Your task to perform on an android device: Go to wifi settings Image 0: 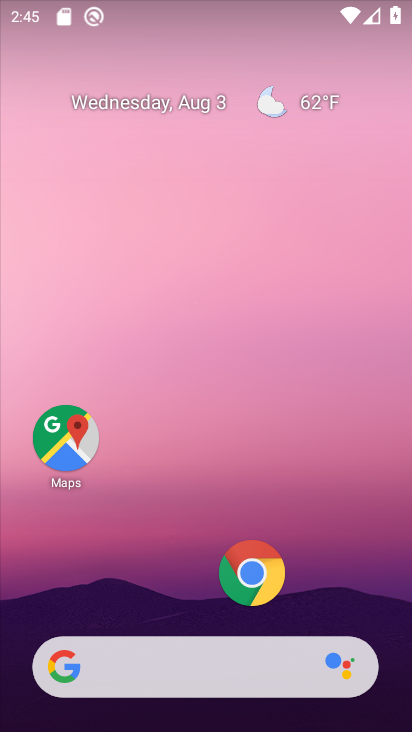
Step 0: drag from (176, 601) to (260, 7)
Your task to perform on an android device: Go to wifi settings Image 1: 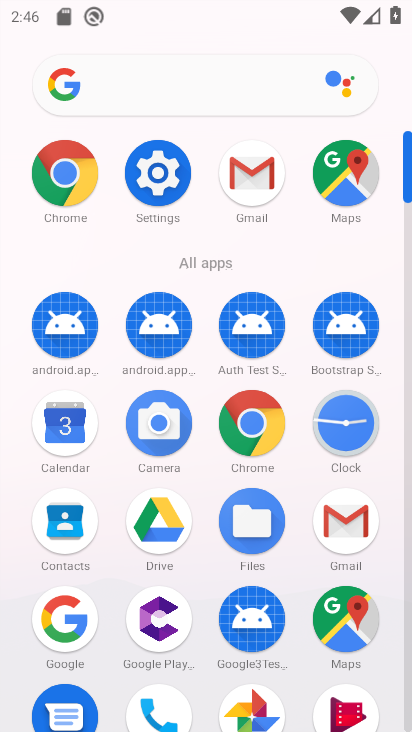
Step 1: click (161, 195)
Your task to perform on an android device: Go to wifi settings Image 2: 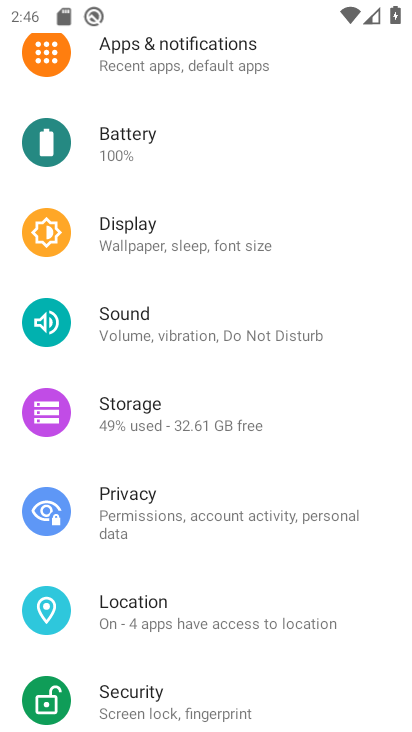
Step 2: drag from (218, 214) to (246, 606)
Your task to perform on an android device: Go to wifi settings Image 3: 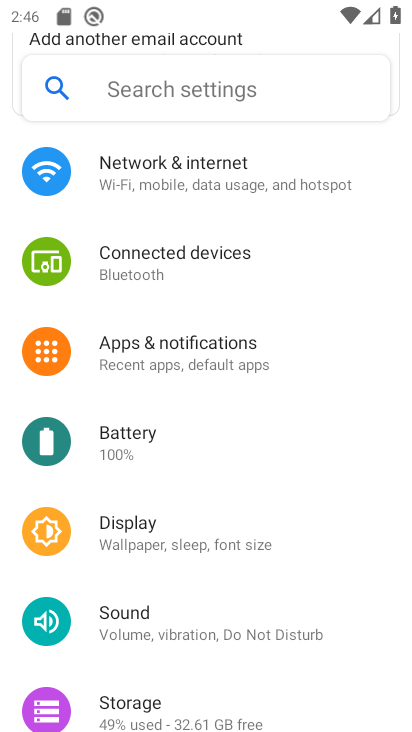
Step 3: click (160, 186)
Your task to perform on an android device: Go to wifi settings Image 4: 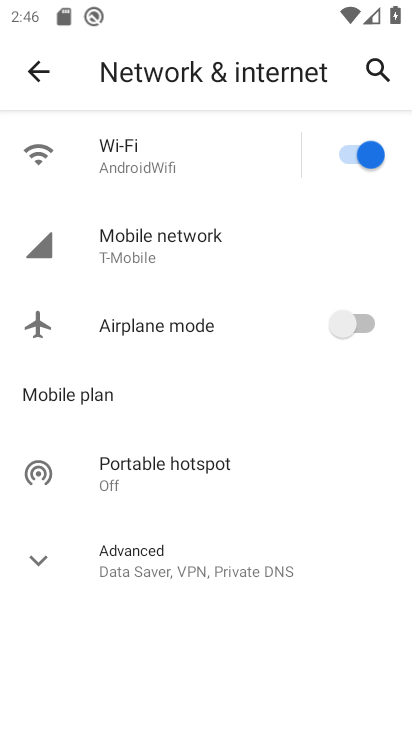
Step 4: click (117, 159)
Your task to perform on an android device: Go to wifi settings Image 5: 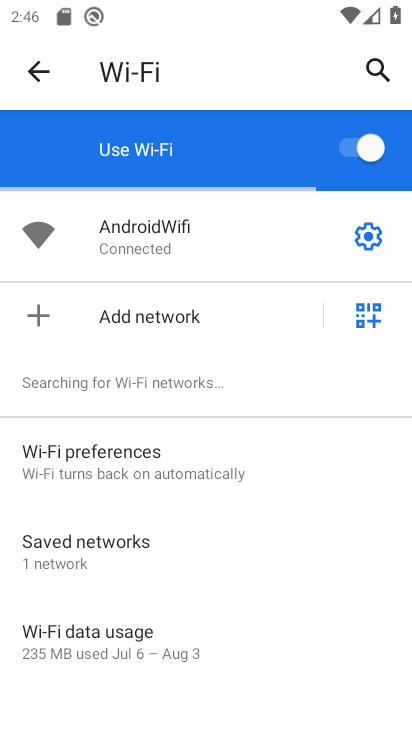
Step 5: task complete